Your task to perform on an android device: What's on my calendar tomorrow? Image 0: 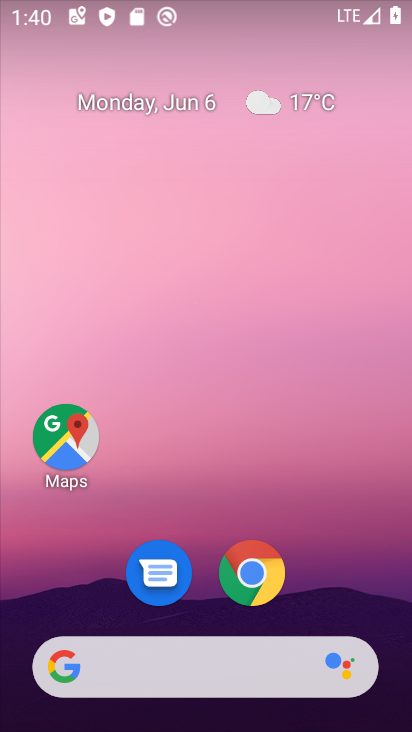
Step 0: drag from (361, 595) to (366, 230)
Your task to perform on an android device: What's on my calendar tomorrow? Image 1: 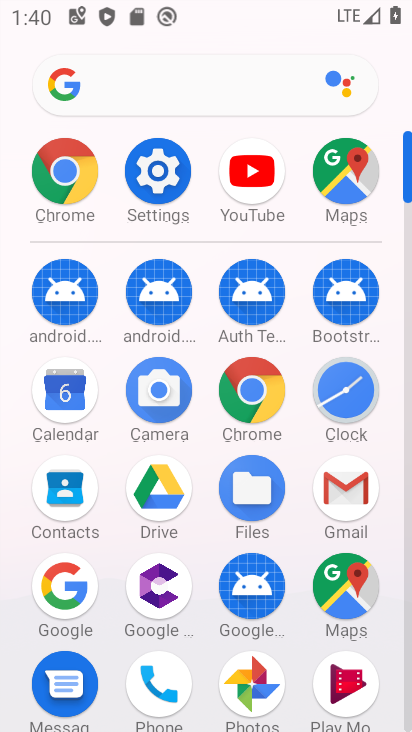
Step 1: click (79, 396)
Your task to perform on an android device: What's on my calendar tomorrow? Image 2: 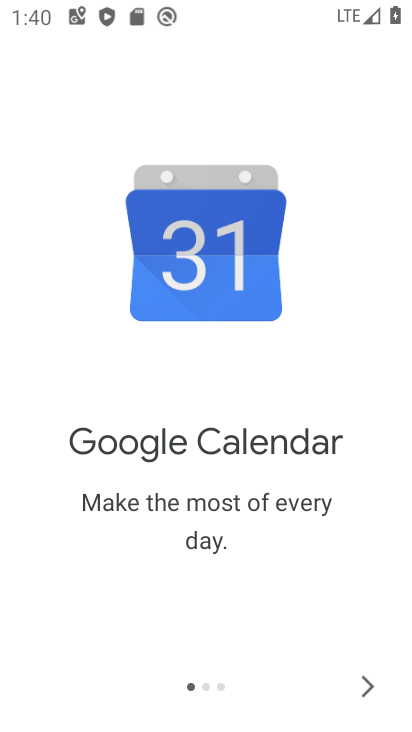
Step 2: click (364, 683)
Your task to perform on an android device: What's on my calendar tomorrow? Image 3: 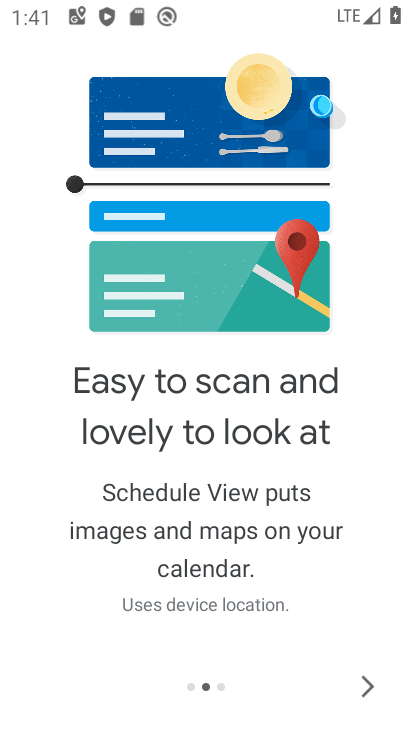
Step 3: click (372, 686)
Your task to perform on an android device: What's on my calendar tomorrow? Image 4: 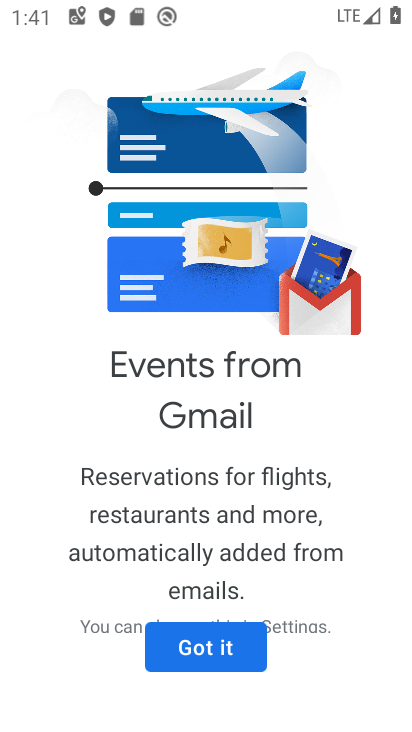
Step 4: click (228, 659)
Your task to perform on an android device: What's on my calendar tomorrow? Image 5: 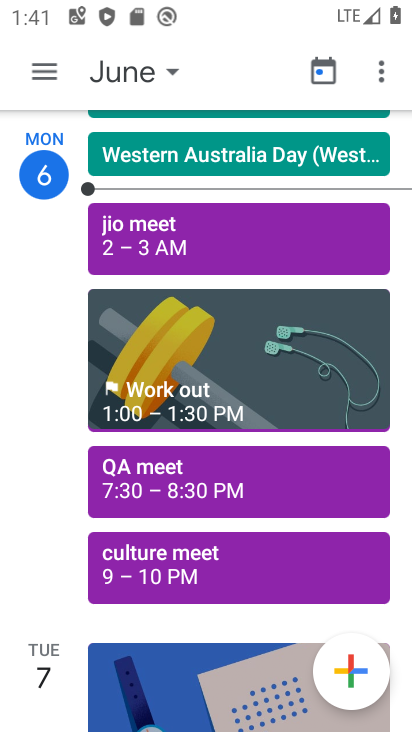
Step 5: drag from (255, 545) to (259, 171)
Your task to perform on an android device: What's on my calendar tomorrow? Image 6: 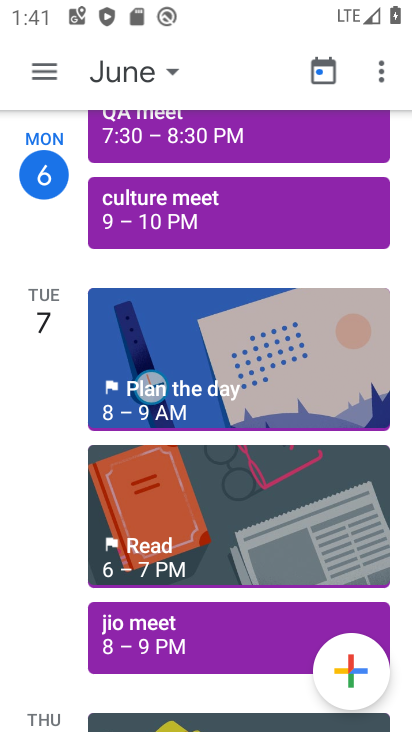
Step 6: click (166, 505)
Your task to perform on an android device: What's on my calendar tomorrow? Image 7: 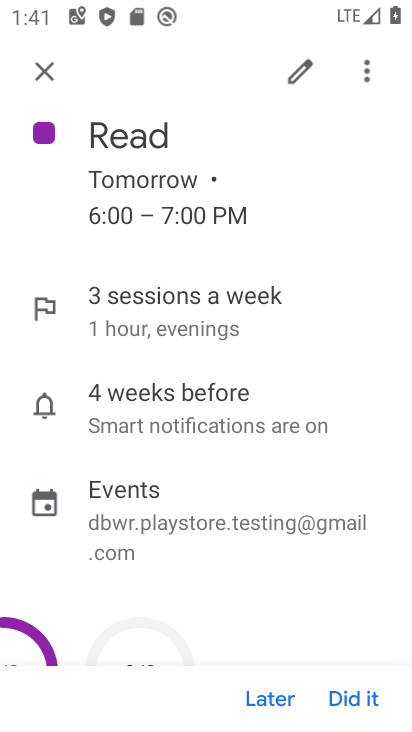
Step 7: task complete